Your task to perform on an android device: turn on data saver in the chrome app Image 0: 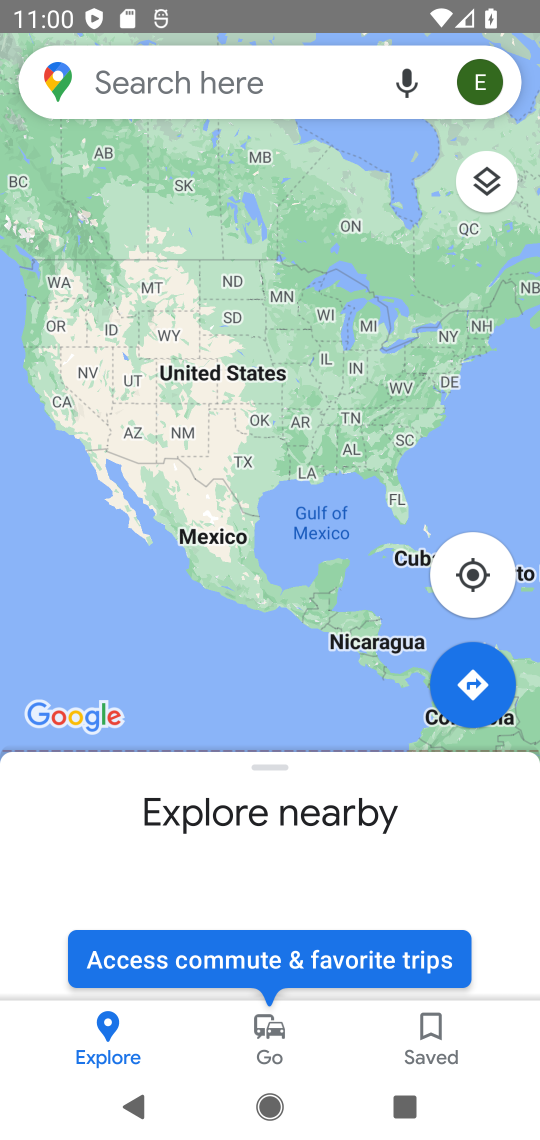
Step 0: press home button
Your task to perform on an android device: turn on data saver in the chrome app Image 1: 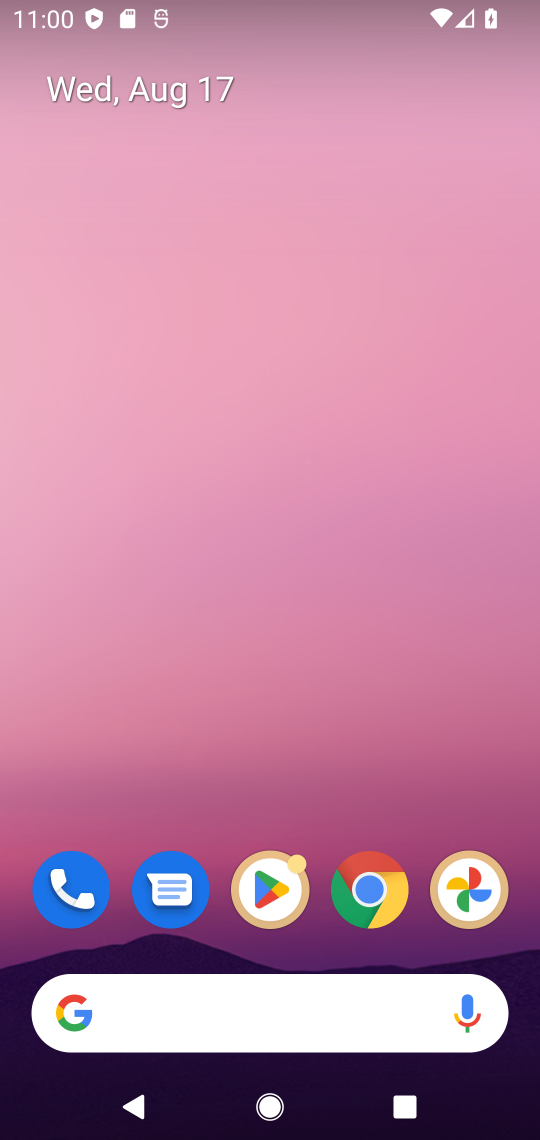
Step 1: click (372, 884)
Your task to perform on an android device: turn on data saver in the chrome app Image 2: 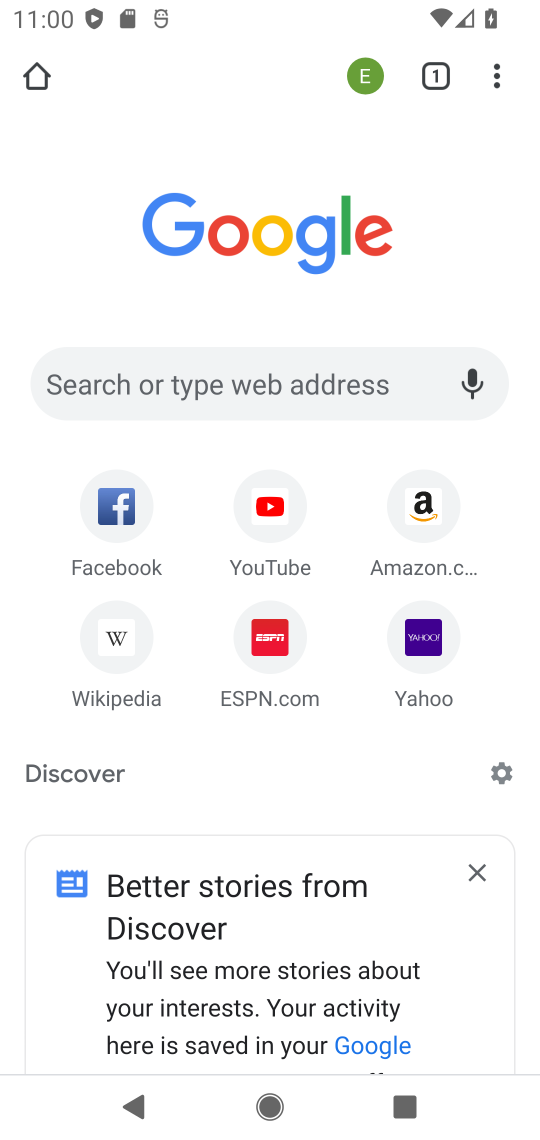
Step 2: click (497, 74)
Your task to perform on an android device: turn on data saver in the chrome app Image 3: 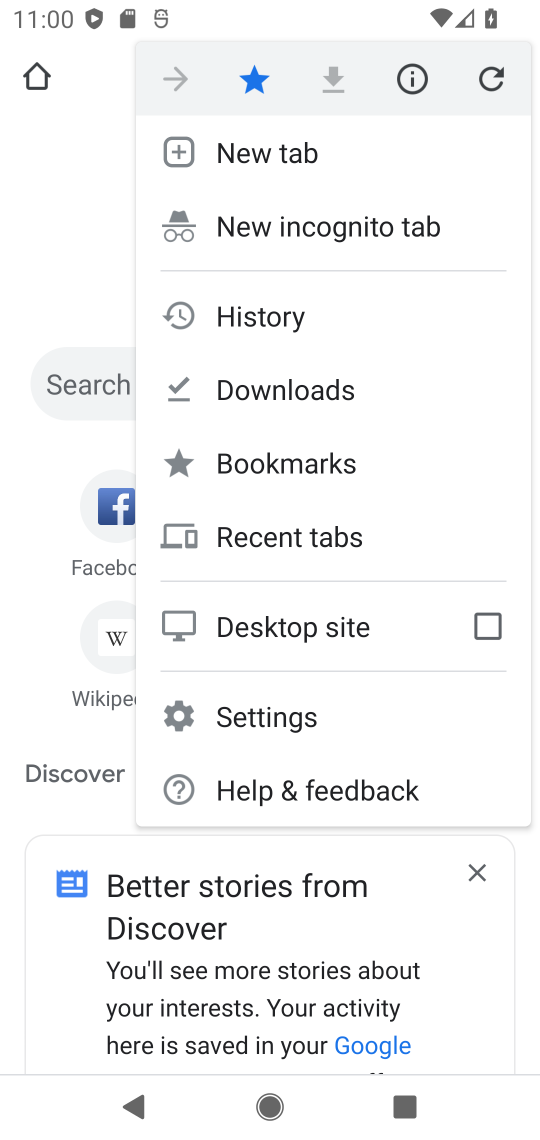
Step 3: click (312, 721)
Your task to perform on an android device: turn on data saver in the chrome app Image 4: 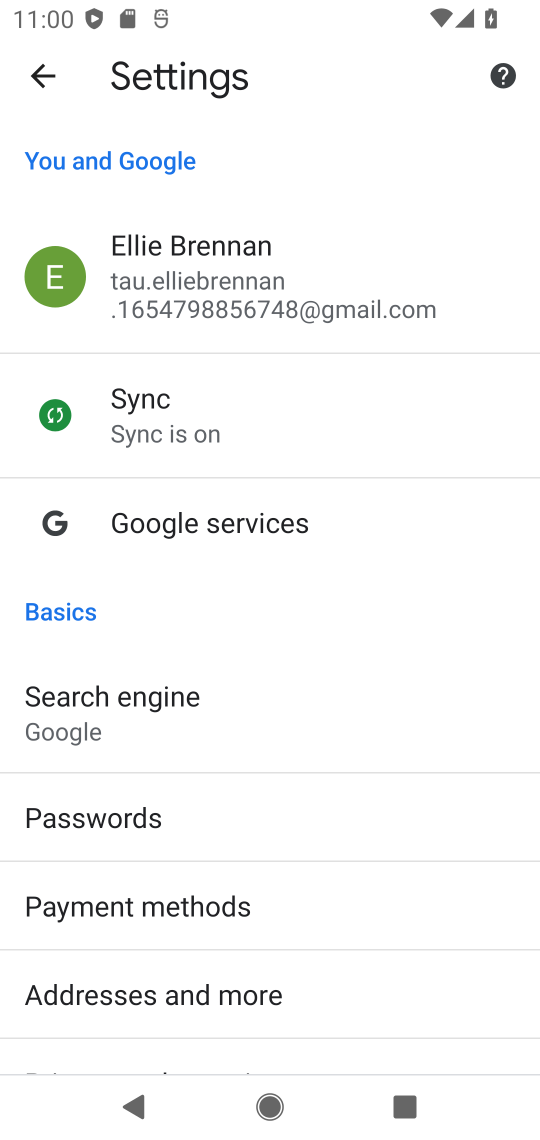
Step 4: drag from (351, 915) to (368, 13)
Your task to perform on an android device: turn on data saver in the chrome app Image 5: 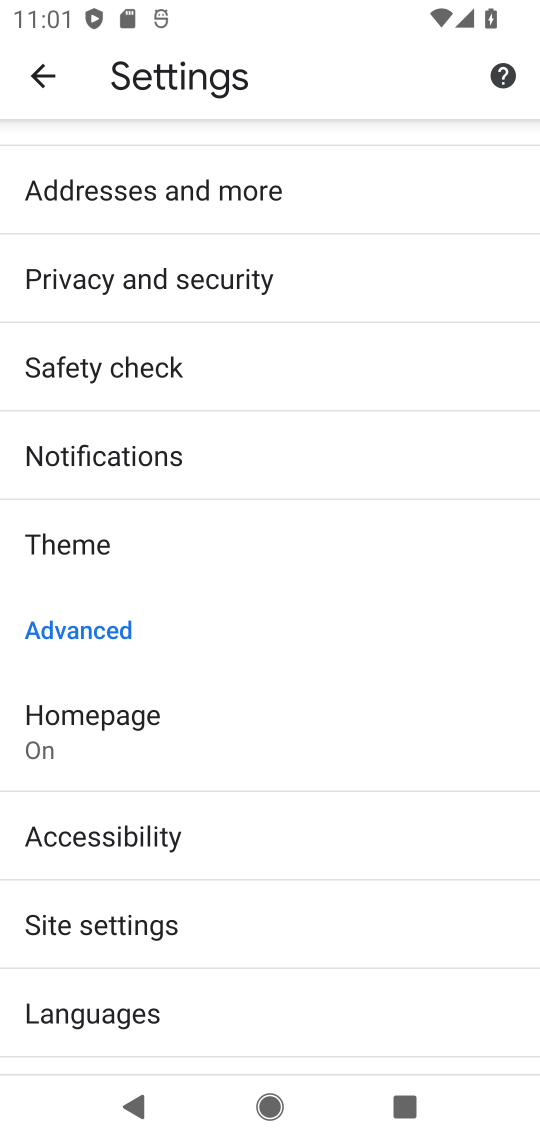
Step 5: drag from (254, 939) to (325, 229)
Your task to perform on an android device: turn on data saver in the chrome app Image 6: 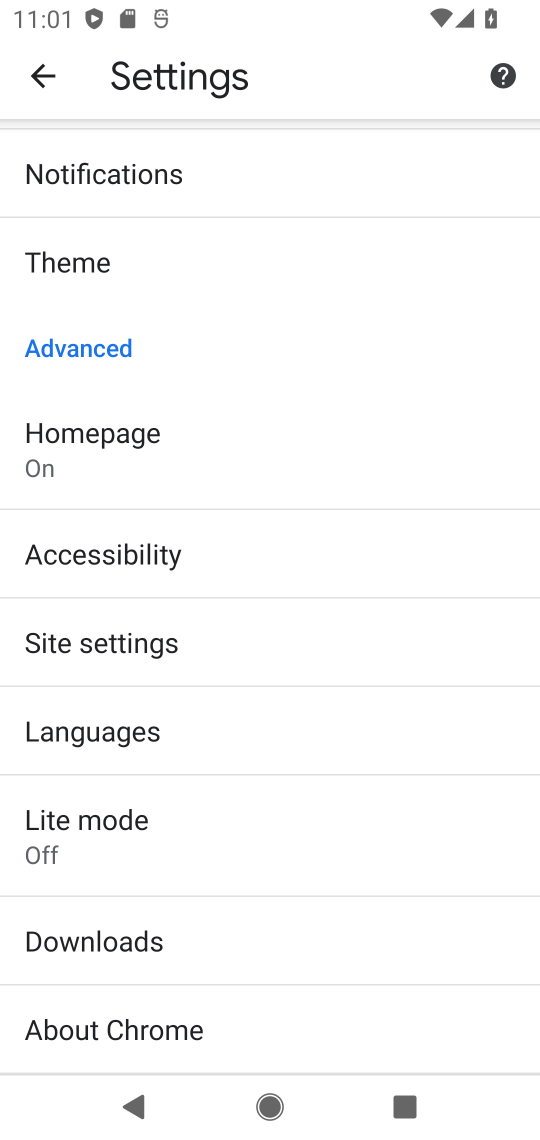
Step 6: click (239, 845)
Your task to perform on an android device: turn on data saver in the chrome app Image 7: 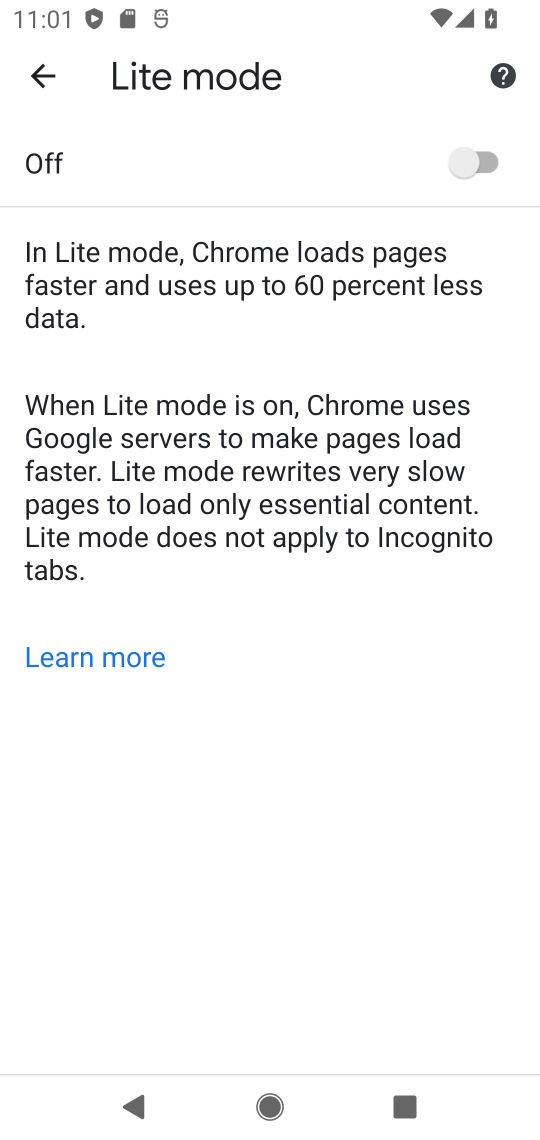
Step 7: click (478, 164)
Your task to perform on an android device: turn on data saver in the chrome app Image 8: 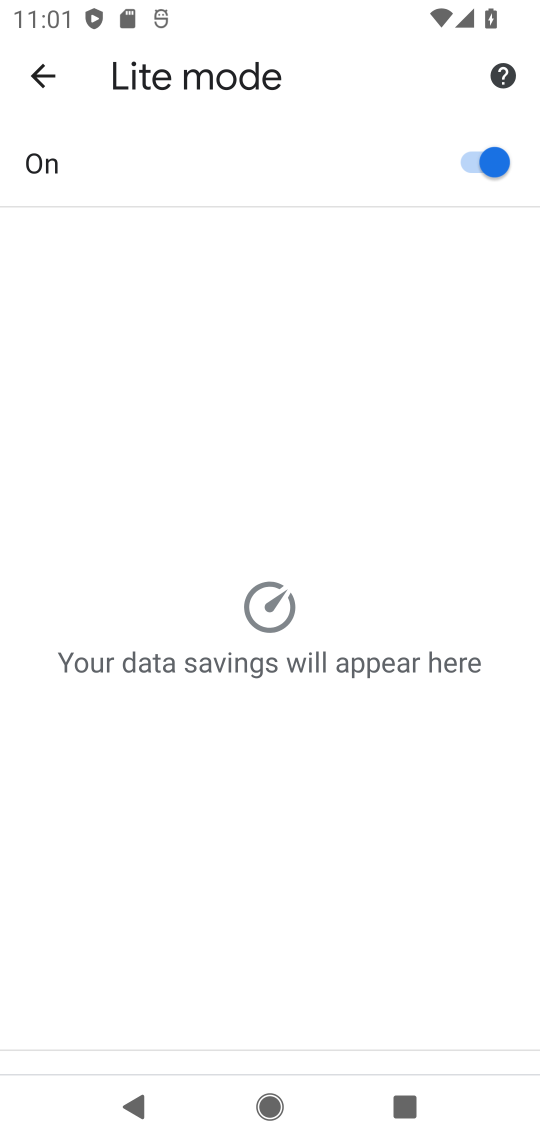
Step 8: task complete